Your task to perform on an android device: Search for the best gaming mouse on Best Buy. Image 0: 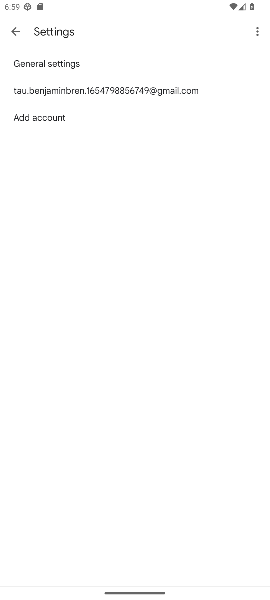
Step 0: press home button
Your task to perform on an android device: Search for the best gaming mouse on Best Buy. Image 1: 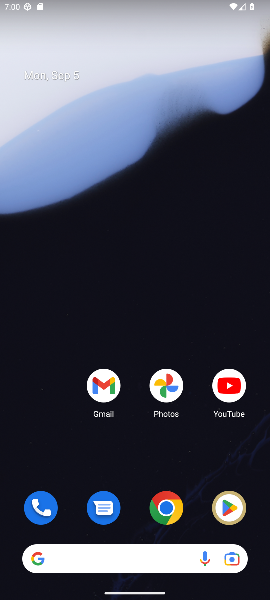
Step 1: click (164, 518)
Your task to perform on an android device: Search for the best gaming mouse on Best Buy. Image 2: 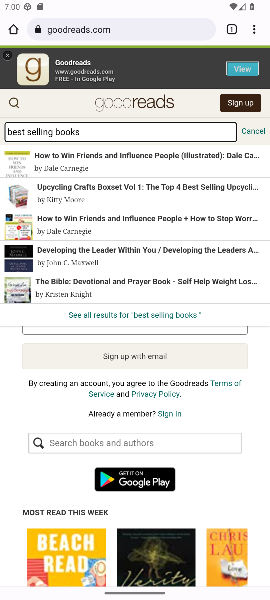
Step 2: click (93, 31)
Your task to perform on an android device: Search for the best gaming mouse on Best Buy. Image 3: 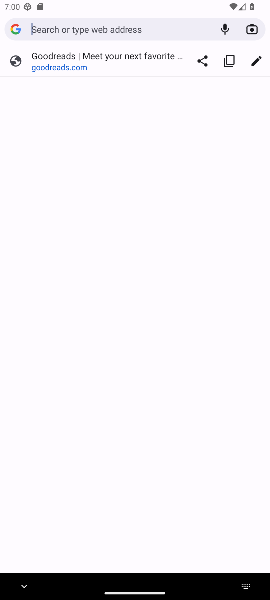
Step 3: type "best buy"
Your task to perform on an android device: Search for the best gaming mouse on Best Buy. Image 4: 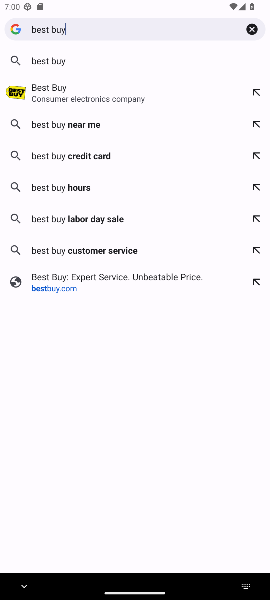
Step 4: click (67, 100)
Your task to perform on an android device: Search for the best gaming mouse on Best Buy. Image 5: 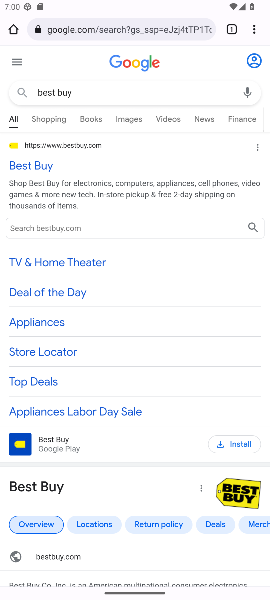
Step 5: click (19, 168)
Your task to perform on an android device: Search for the best gaming mouse on Best Buy. Image 6: 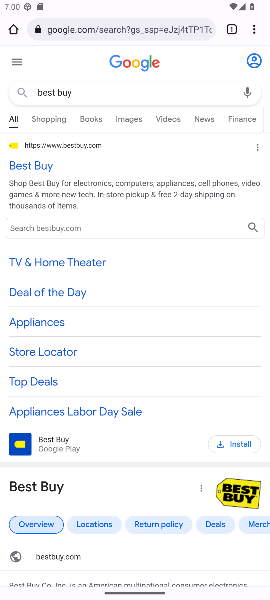
Step 6: click (40, 170)
Your task to perform on an android device: Search for the best gaming mouse on Best Buy. Image 7: 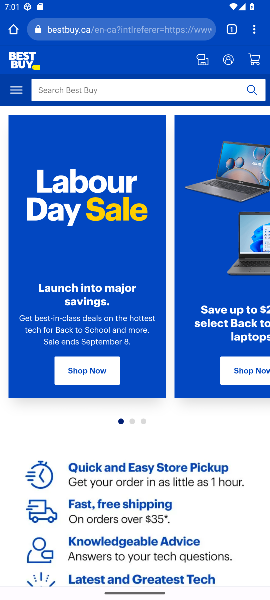
Step 7: click (91, 93)
Your task to perform on an android device: Search for the best gaming mouse on Best Buy. Image 8: 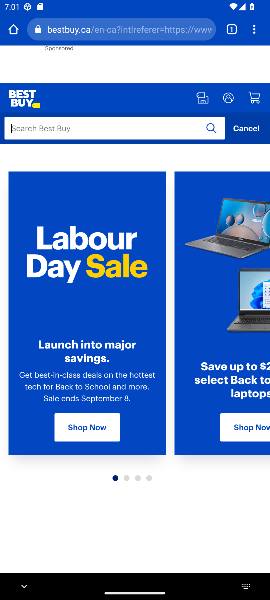
Step 8: type " best gaming mouse"
Your task to perform on an android device: Search for the best gaming mouse on Best Buy. Image 9: 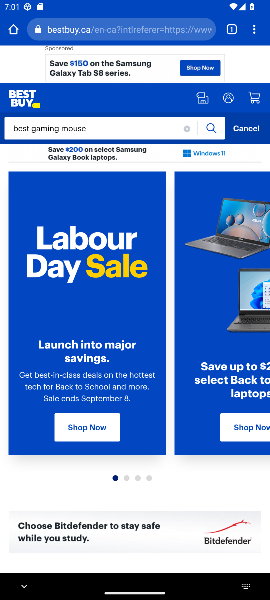
Step 9: click (211, 131)
Your task to perform on an android device: Search for the best gaming mouse on Best Buy. Image 10: 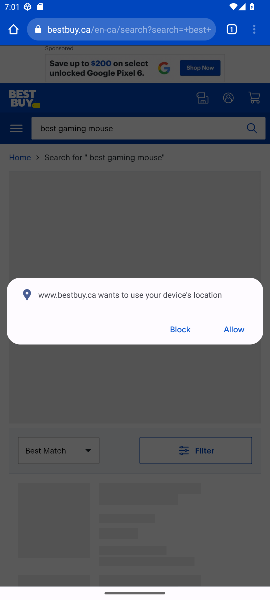
Step 10: click (176, 331)
Your task to perform on an android device: Search for the best gaming mouse on Best Buy. Image 11: 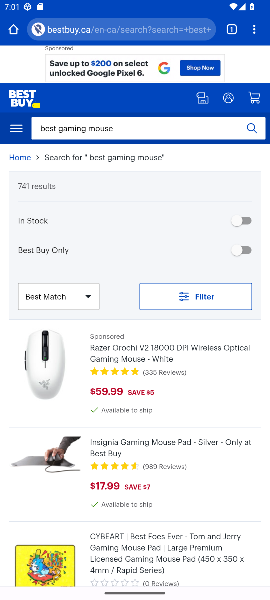
Step 11: task complete